Your task to perform on an android device: Open network settings Image 0: 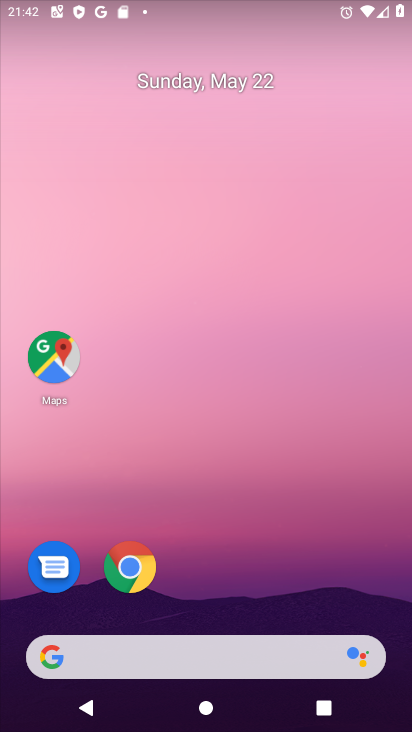
Step 0: drag from (196, 632) to (278, 11)
Your task to perform on an android device: Open network settings Image 1: 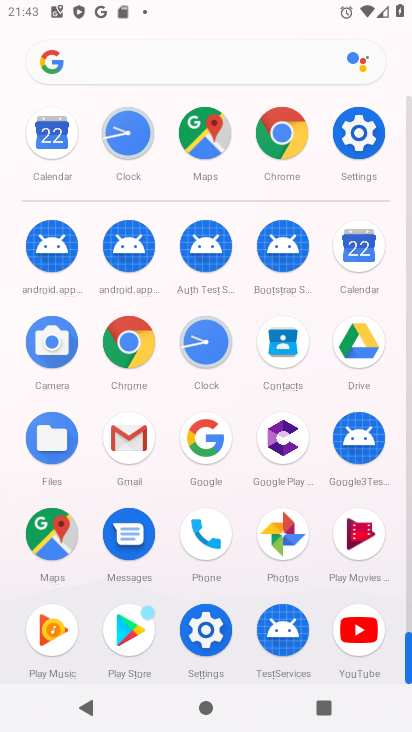
Step 1: click (200, 628)
Your task to perform on an android device: Open network settings Image 2: 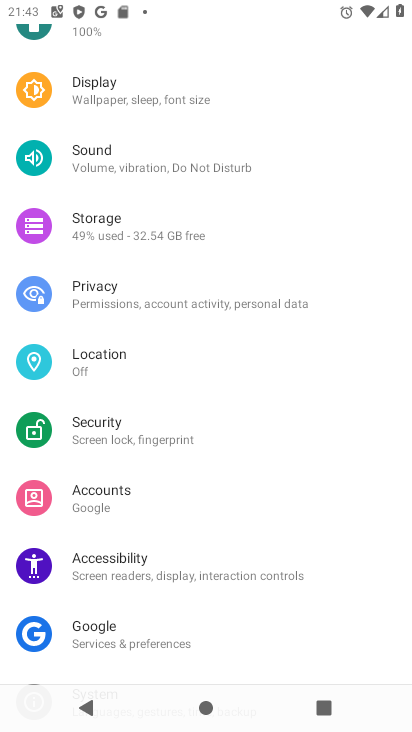
Step 2: drag from (214, 232) to (219, 539)
Your task to perform on an android device: Open network settings Image 3: 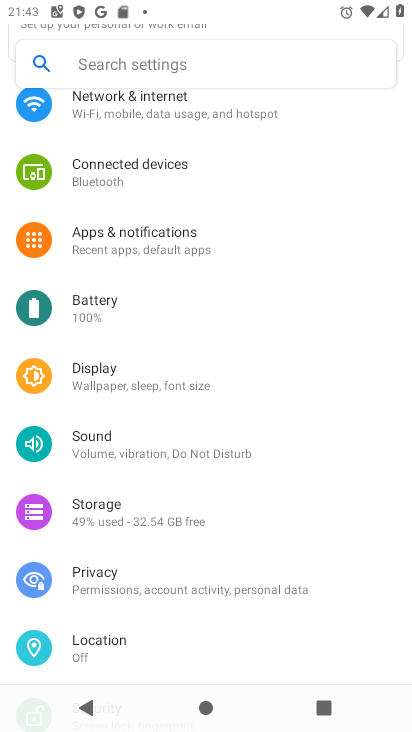
Step 3: click (222, 107)
Your task to perform on an android device: Open network settings Image 4: 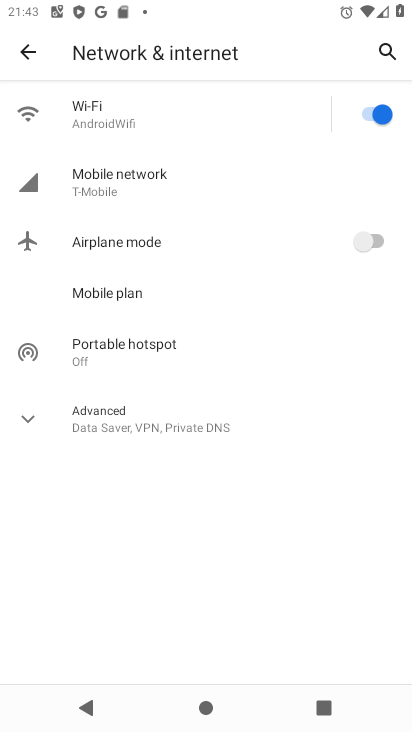
Step 4: task complete